Your task to perform on an android device: Open internet settings Image 0: 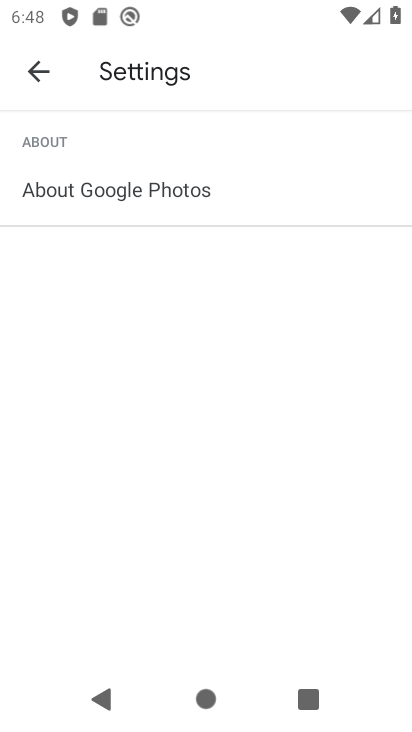
Step 0: drag from (303, 309) to (257, 122)
Your task to perform on an android device: Open internet settings Image 1: 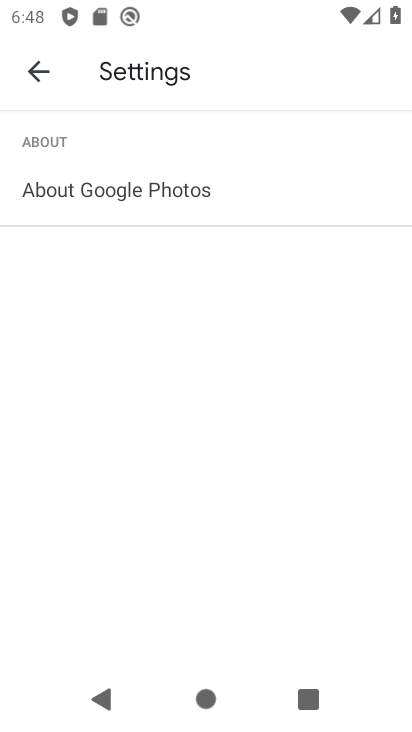
Step 1: press home button
Your task to perform on an android device: Open internet settings Image 2: 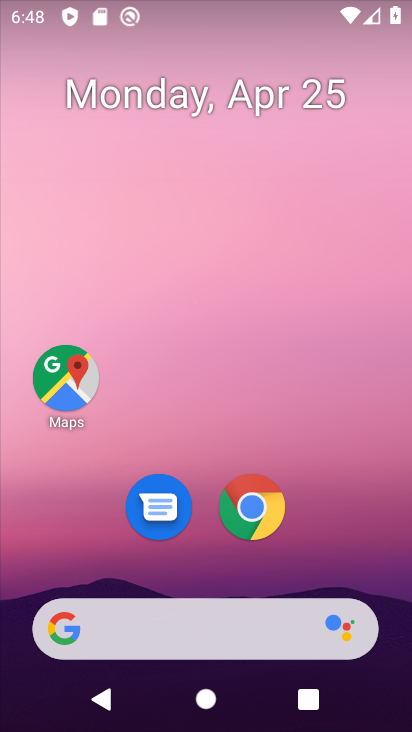
Step 2: drag from (329, 422) to (246, 46)
Your task to perform on an android device: Open internet settings Image 3: 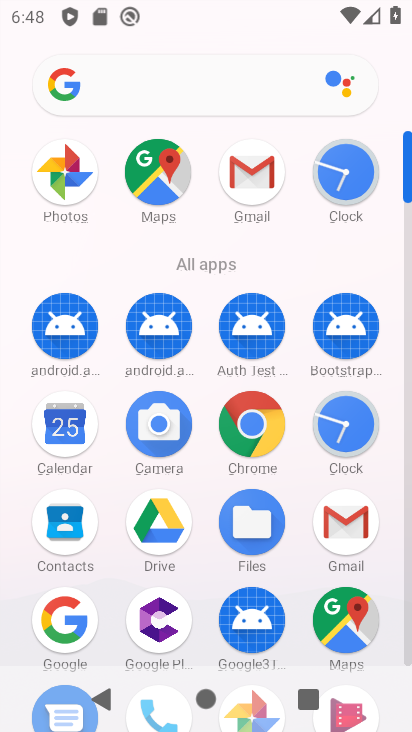
Step 3: click (409, 657)
Your task to perform on an android device: Open internet settings Image 4: 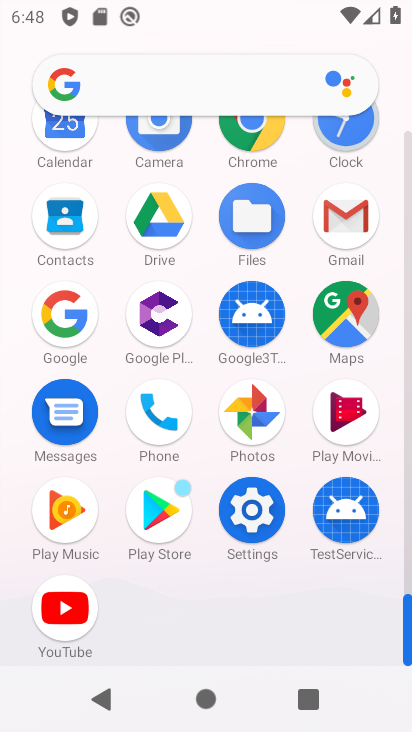
Step 4: click (251, 528)
Your task to perform on an android device: Open internet settings Image 5: 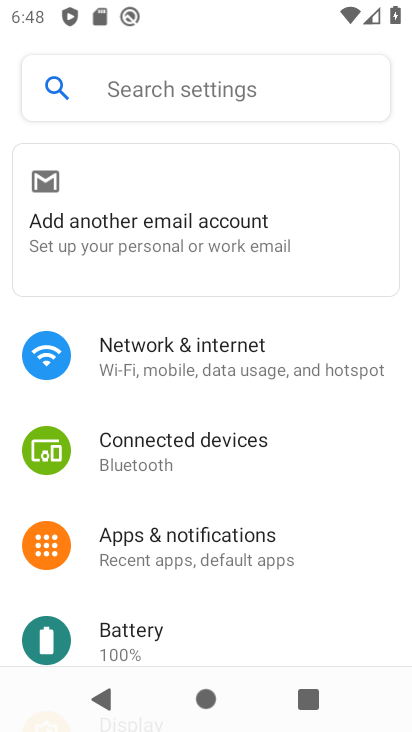
Step 5: click (214, 370)
Your task to perform on an android device: Open internet settings Image 6: 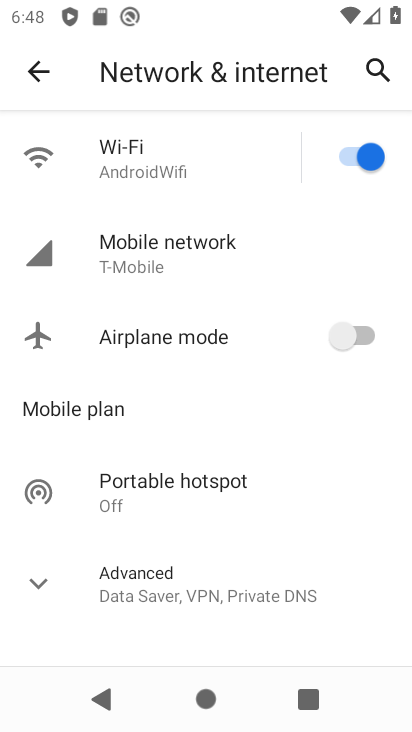
Step 6: task complete